Your task to perform on an android device: Open Android settings Image 0: 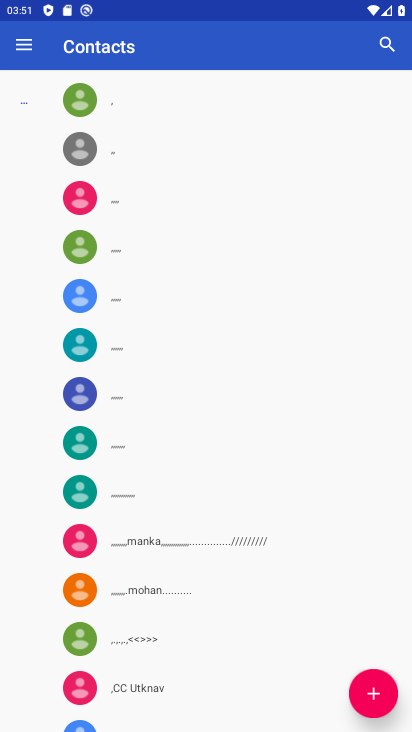
Step 0: press home button
Your task to perform on an android device: Open Android settings Image 1: 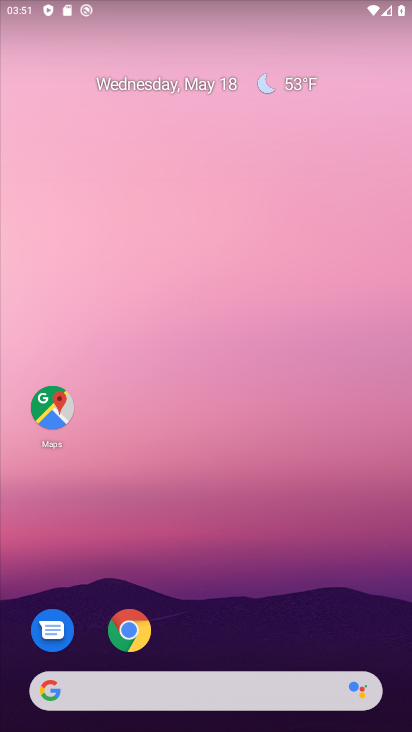
Step 1: drag from (213, 729) to (239, 225)
Your task to perform on an android device: Open Android settings Image 2: 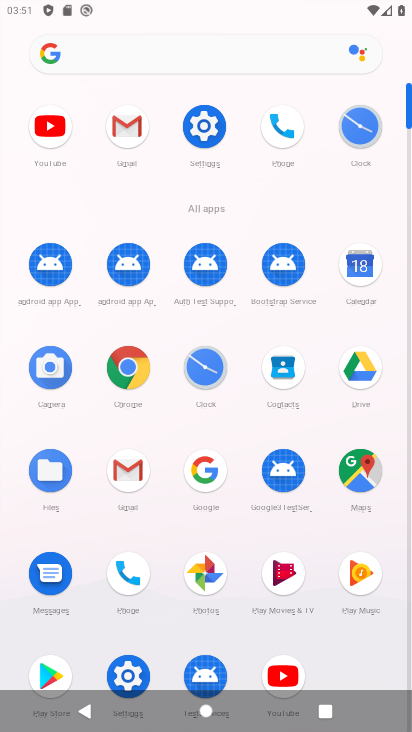
Step 2: click (205, 119)
Your task to perform on an android device: Open Android settings Image 3: 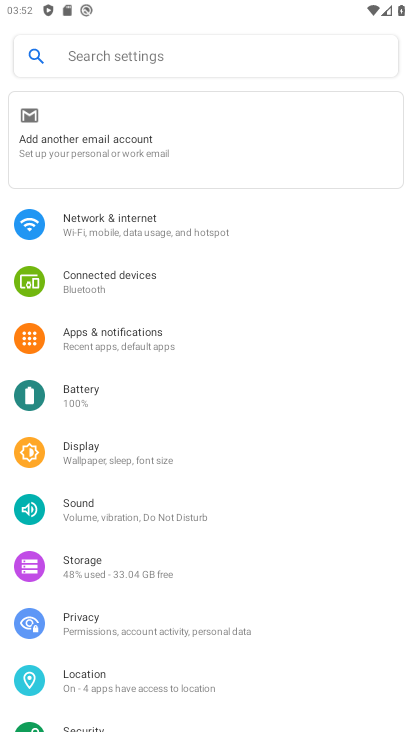
Step 3: task complete